Your task to perform on an android device: Open Google Maps Image 0: 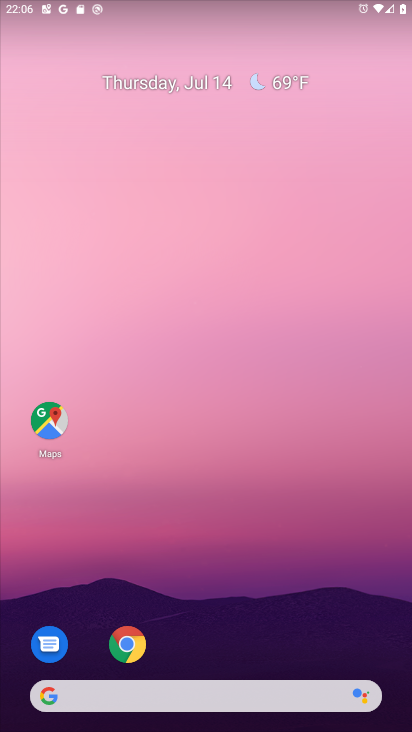
Step 0: click (43, 412)
Your task to perform on an android device: Open Google Maps Image 1: 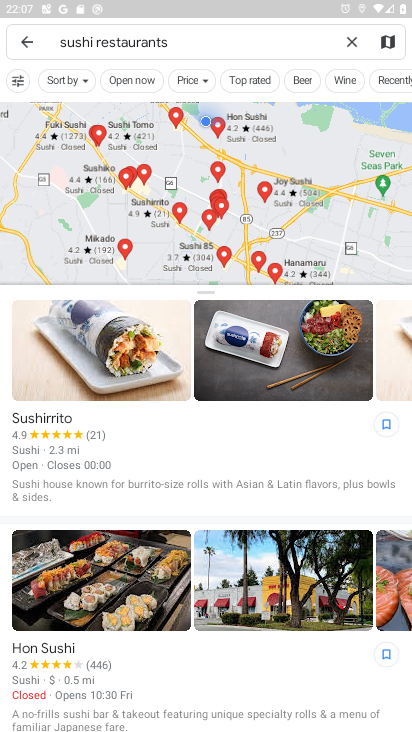
Step 1: click (30, 40)
Your task to perform on an android device: Open Google Maps Image 2: 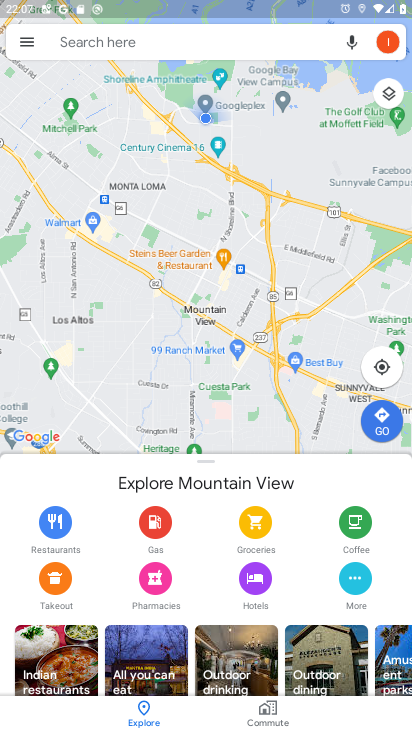
Step 2: task complete